Your task to perform on an android device: change timer sound Image 0: 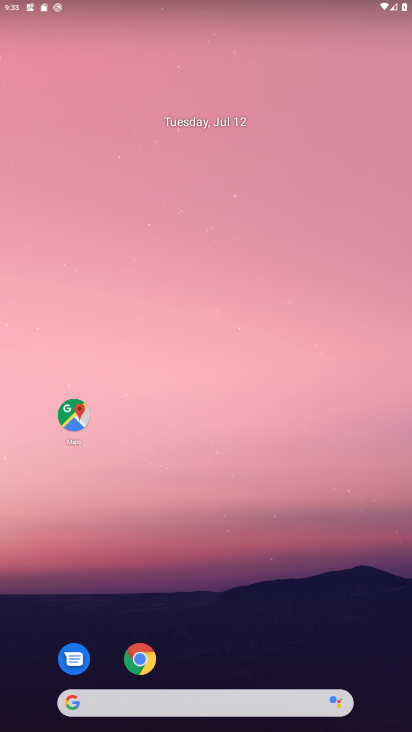
Step 0: drag from (206, 648) to (203, 111)
Your task to perform on an android device: change timer sound Image 1: 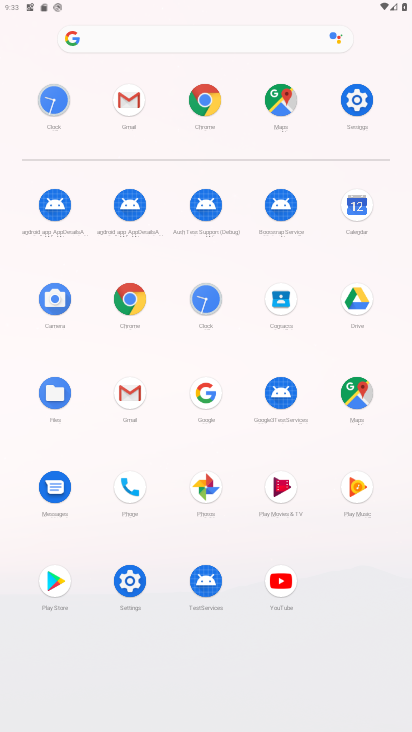
Step 1: click (194, 301)
Your task to perform on an android device: change timer sound Image 2: 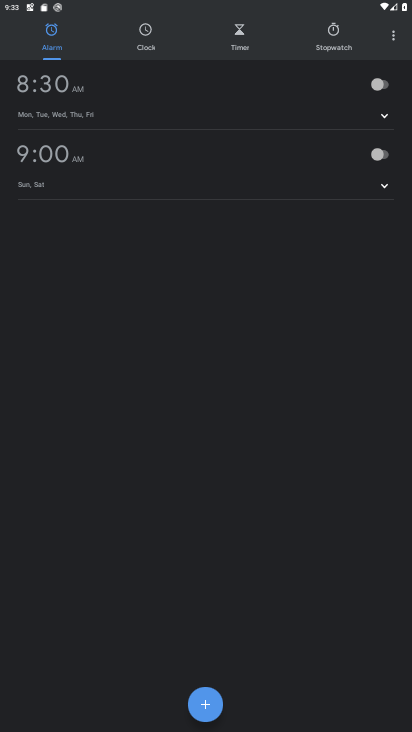
Step 2: click (235, 45)
Your task to perform on an android device: change timer sound Image 3: 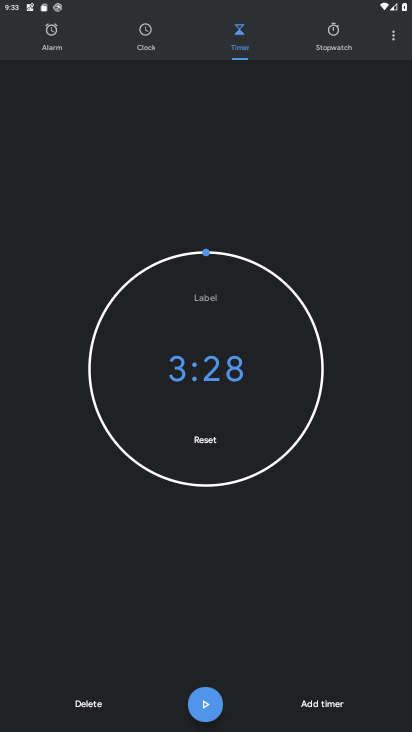
Step 3: click (395, 34)
Your task to perform on an android device: change timer sound Image 4: 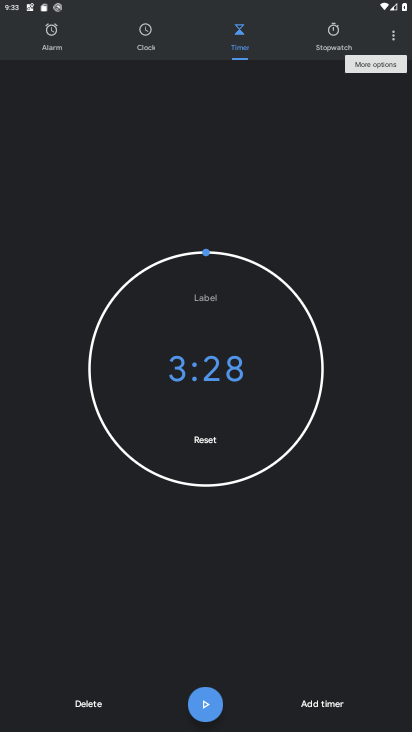
Step 4: click (395, 34)
Your task to perform on an android device: change timer sound Image 5: 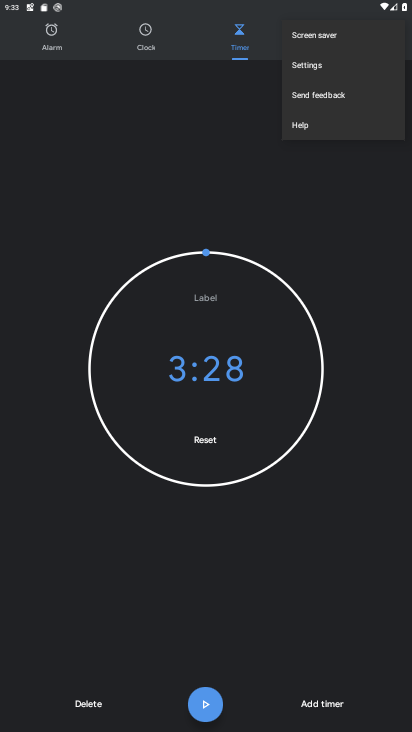
Step 5: click (313, 67)
Your task to perform on an android device: change timer sound Image 6: 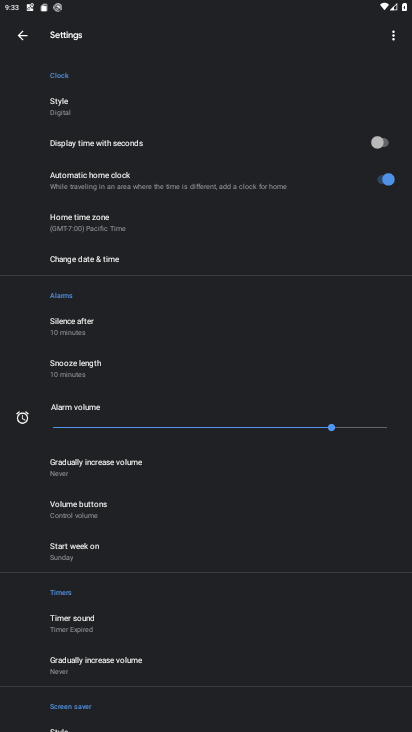
Step 6: click (62, 619)
Your task to perform on an android device: change timer sound Image 7: 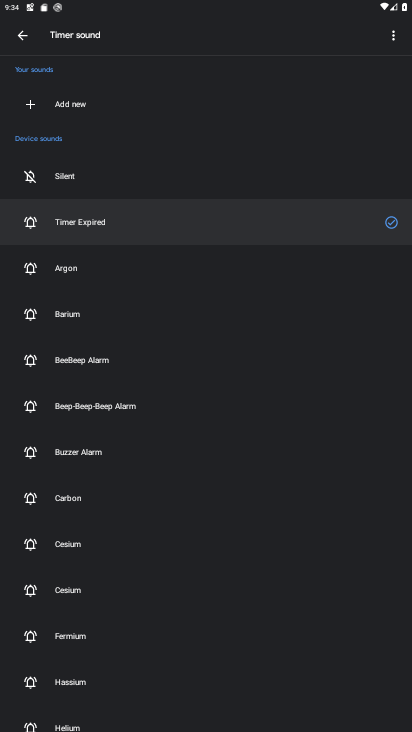
Step 7: click (79, 368)
Your task to perform on an android device: change timer sound Image 8: 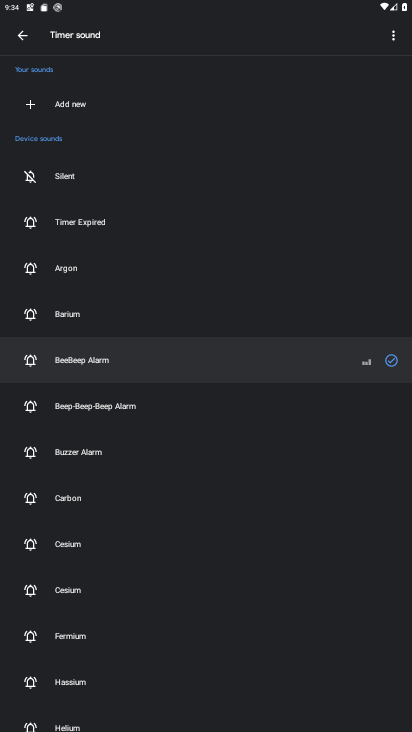
Step 8: click (393, 351)
Your task to perform on an android device: change timer sound Image 9: 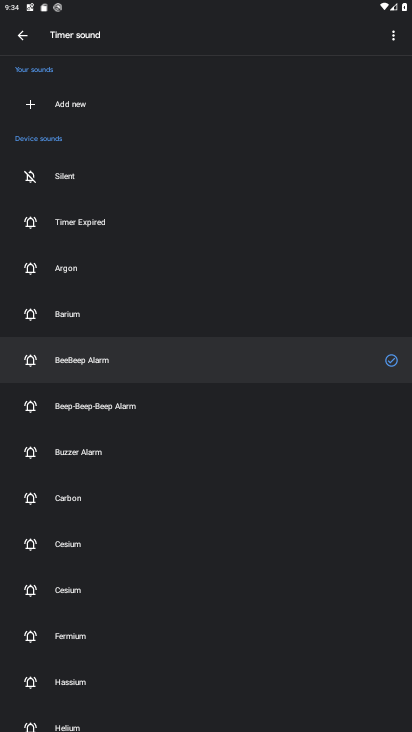
Step 9: task complete